Your task to perform on an android device: Open notification settings Image 0: 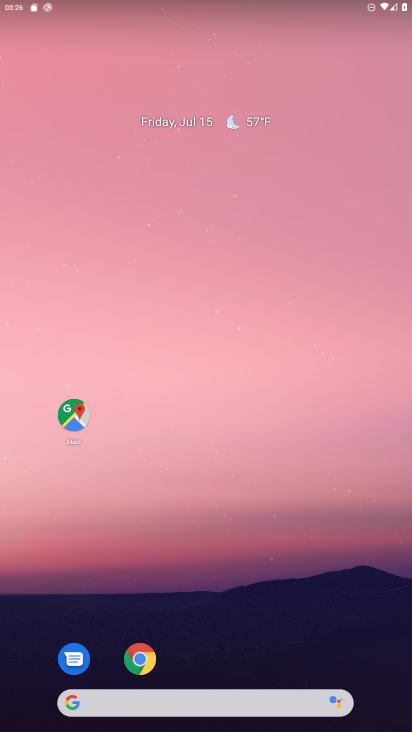
Step 0: drag from (253, 619) to (275, 74)
Your task to perform on an android device: Open notification settings Image 1: 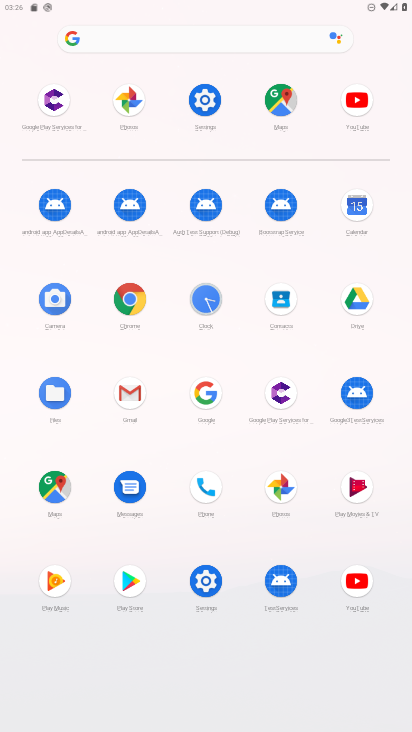
Step 1: click (203, 588)
Your task to perform on an android device: Open notification settings Image 2: 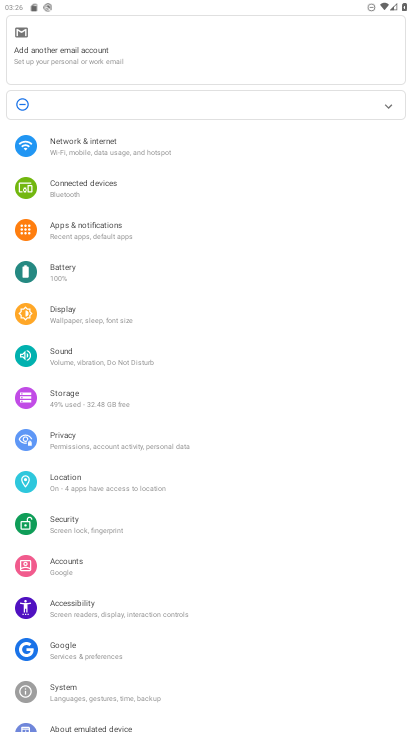
Step 2: click (114, 233)
Your task to perform on an android device: Open notification settings Image 3: 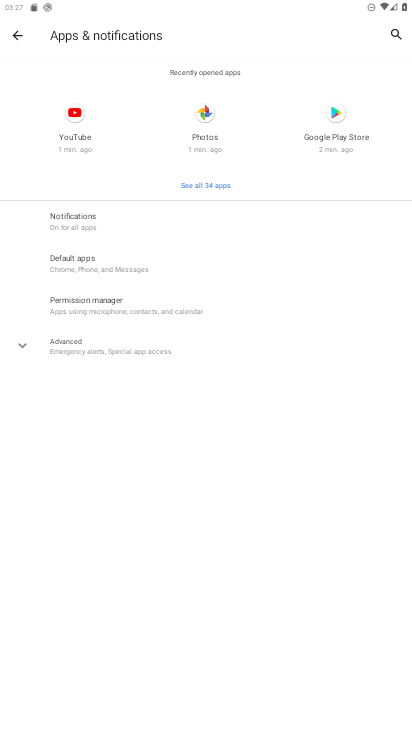
Step 3: click (93, 216)
Your task to perform on an android device: Open notification settings Image 4: 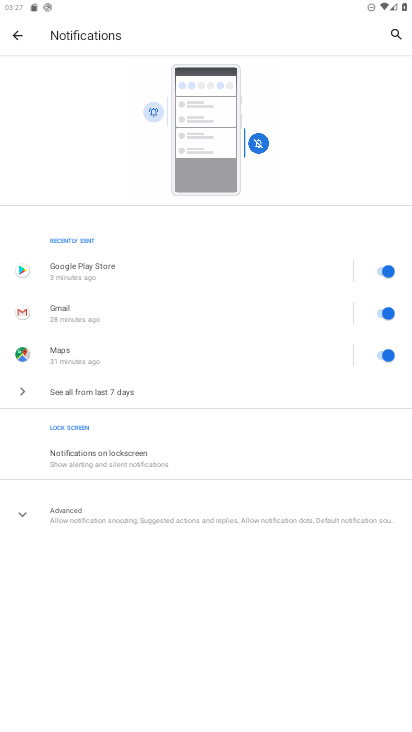
Step 4: task complete